Your task to perform on an android device: empty trash in google photos Image 0: 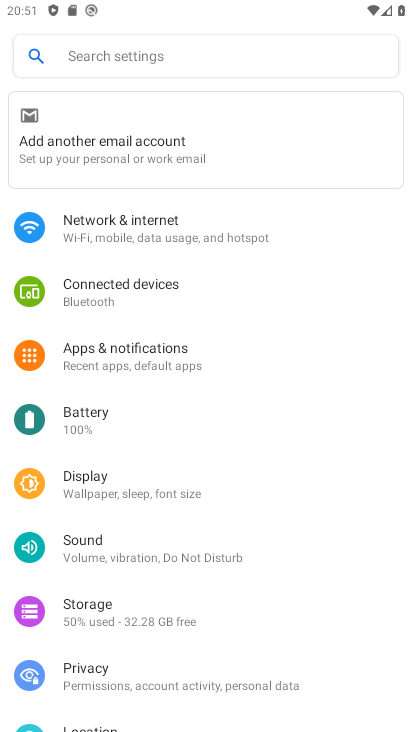
Step 0: press home button
Your task to perform on an android device: empty trash in google photos Image 1: 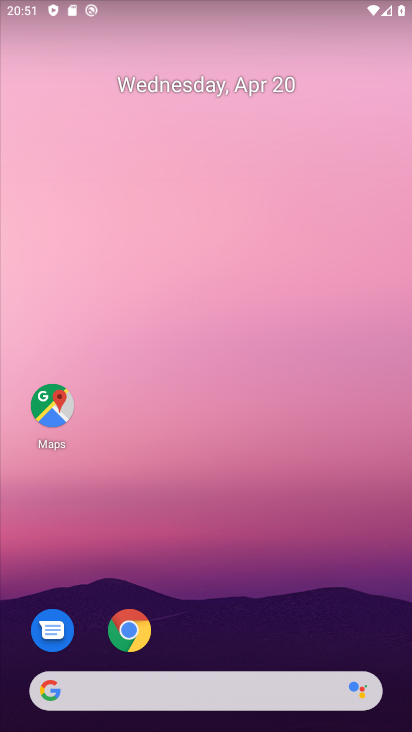
Step 1: drag from (238, 580) to (216, 87)
Your task to perform on an android device: empty trash in google photos Image 2: 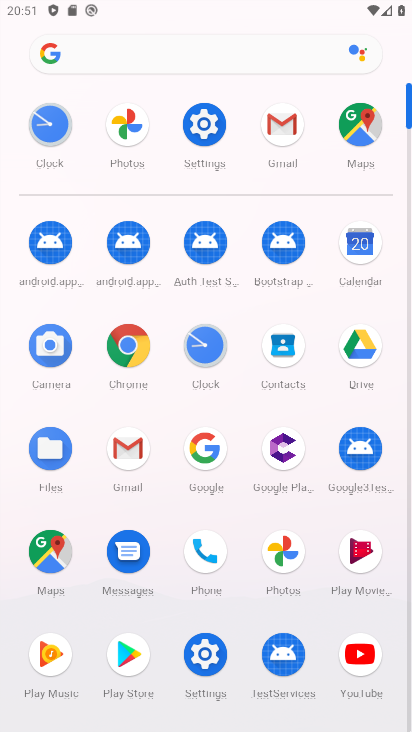
Step 2: click (291, 551)
Your task to perform on an android device: empty trash in google photos Image 3: 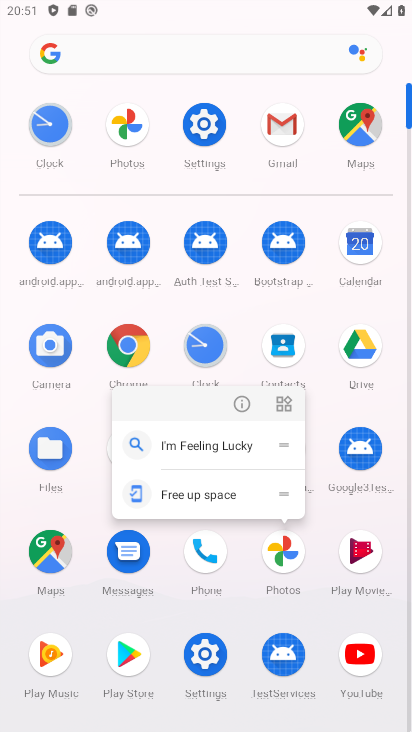
Step 3: click (278, 546)
Your task to perform on an android device: empty trash in google photos Image 4: 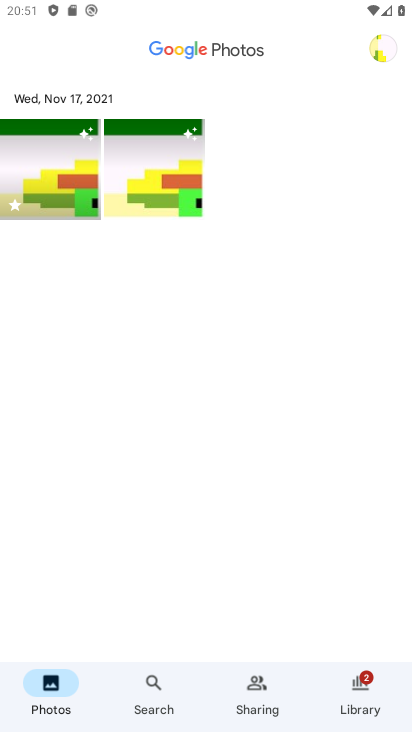
Step 4: click (355, 691)
Your task to perform on an android device: empty trash in google photos Image 5: 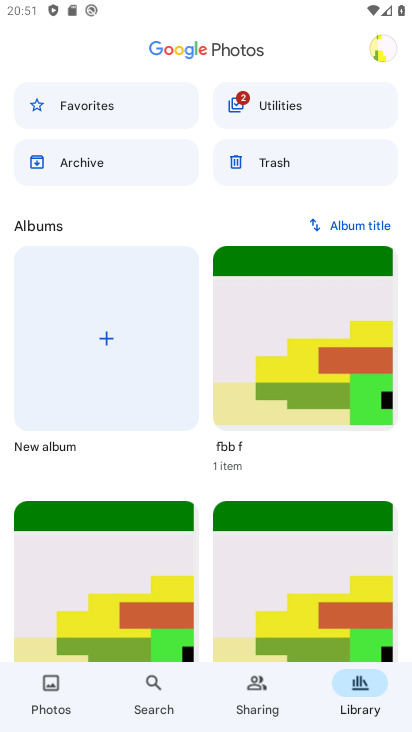
Step 5: click (271, 156)
Your task to perform on an android device: empty trash in google photos Image 6: 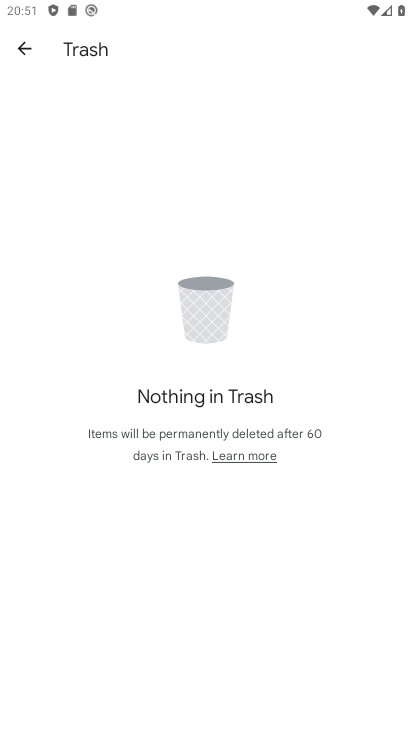
Step 6: task complete